Your task to perform on an android device: turn off translation in the chrome app Image 0: 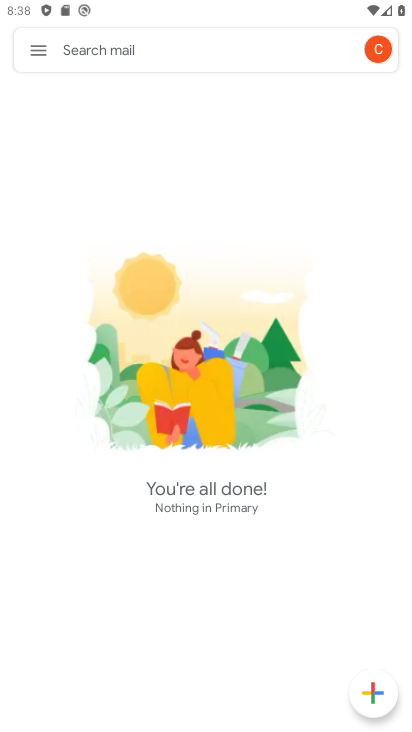
Step 0: press home button
Your task to perform on an android device: turn off translation in the chrome app Image 1: 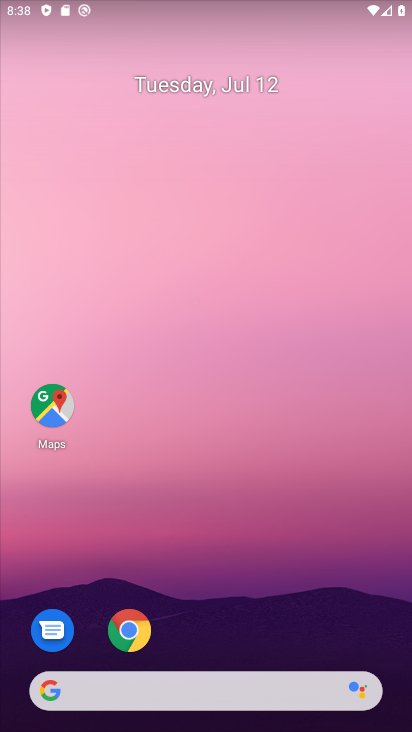
Step 1: click (136, 629)
Your task to perform on an android device: turn off translation in the chrome app Image 2: 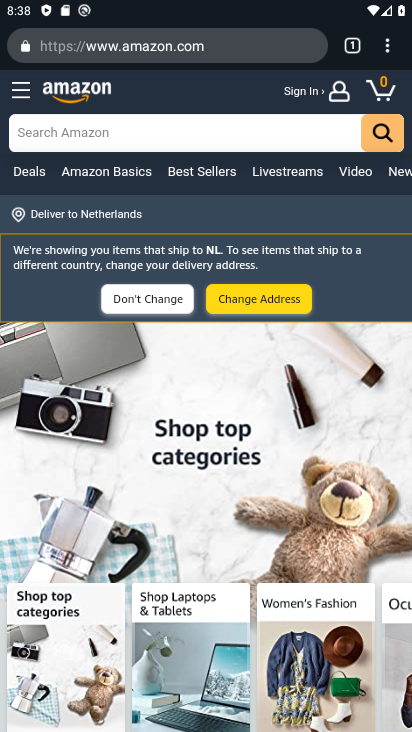
Step 2: drag from (391, 48) to (212, 568)
Your task to perform on an android device: turn off translation in the chrome app Image 3: 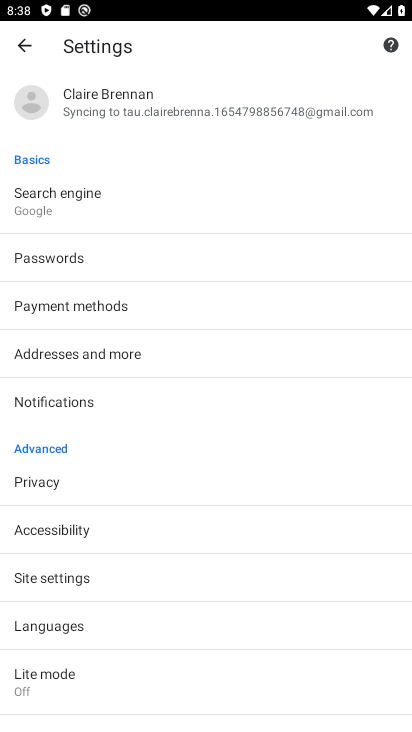
Step 3: click (28, 619)
Your task to perform on an android device: turn off translation in the chrome app Image 4: 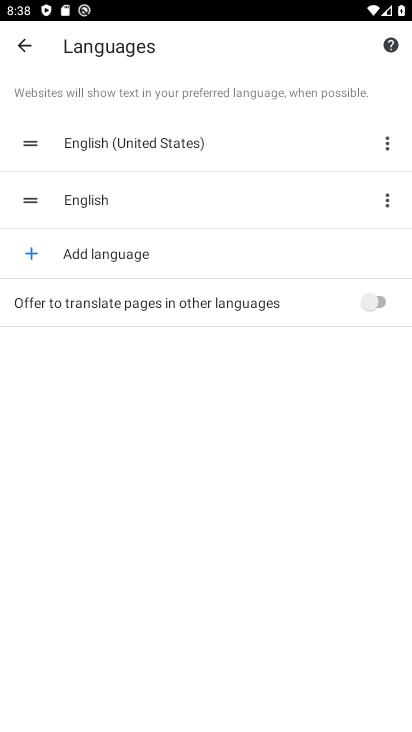
Step 4: task complete